Your task to perform on an android device: see sites visited before in the chrome app Image 0: 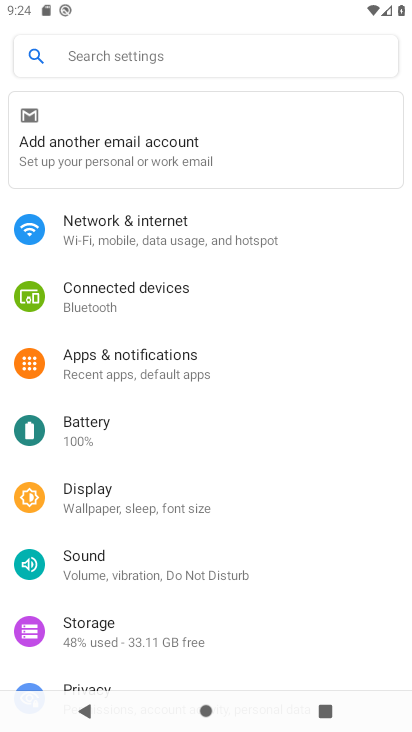
Step 0: press home button
Your task to perform on an android device: see sites visited before in the chrome app Image 1: 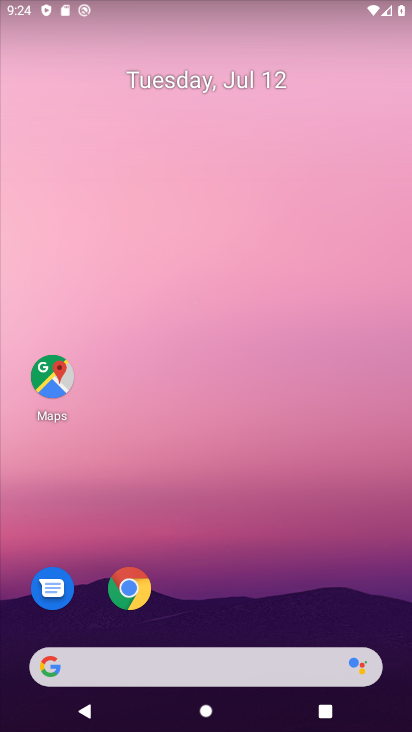
Step 1: drag from (209, 589) to (233, 35)
Your task to perform on an android device: see sites visited before in the chrome app Image 2: 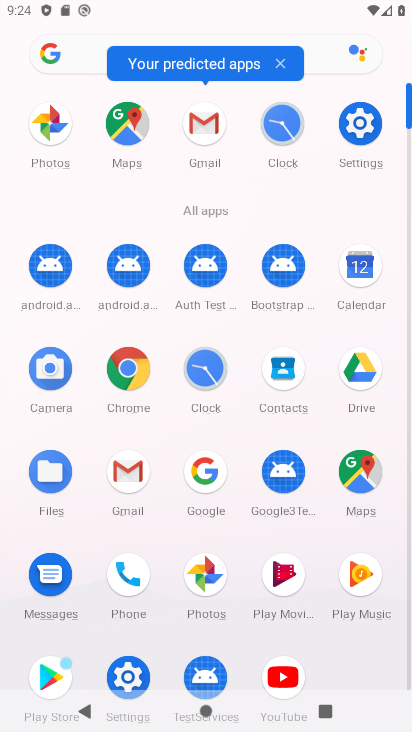
Step 2: click (141, 374)
Your task to perform on an android device: see sites visited before in the chrome app Image 3: 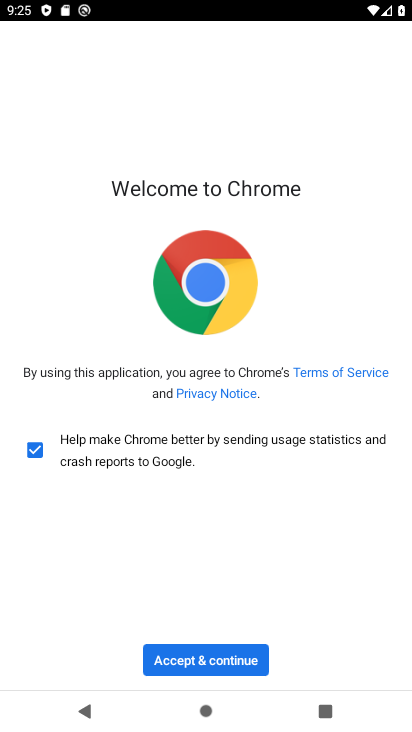
Step 3: click (234, 658)
Your task to perform on an android device: see sites visited before in the chrome app Image 4: 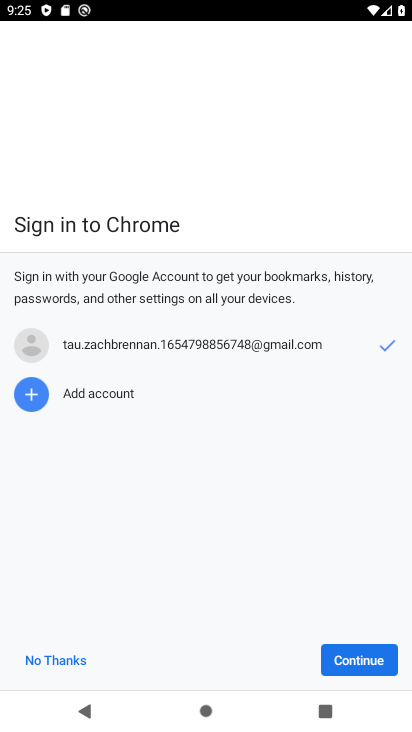
Step 4: click (332, 662)
Your task to perform on an android device: see sites visited before in the chrome app Image 5: 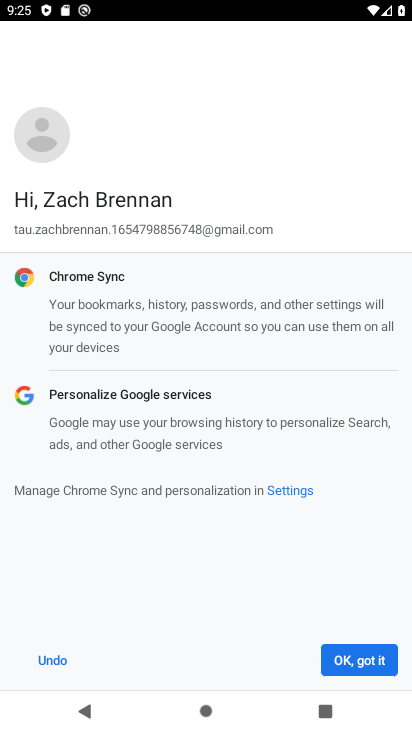
Step 5: click (351, 665)
Your task to perform on an android device: see sites visited before in the chrome app Image 6: 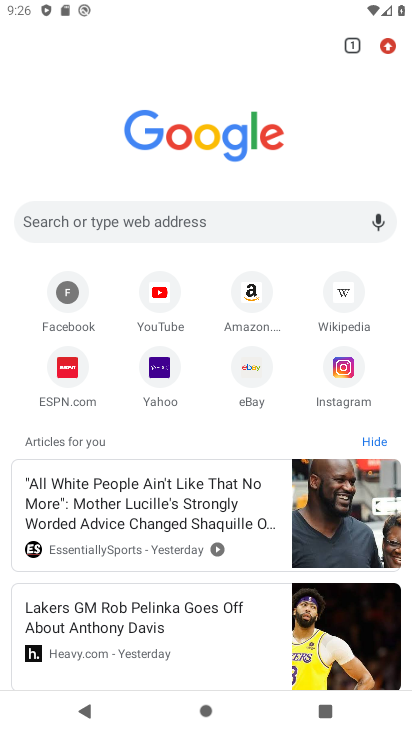
Step 6: click (384, 43)
Your task to perform on an android device: see sites visited before in the chrome app Image 7: 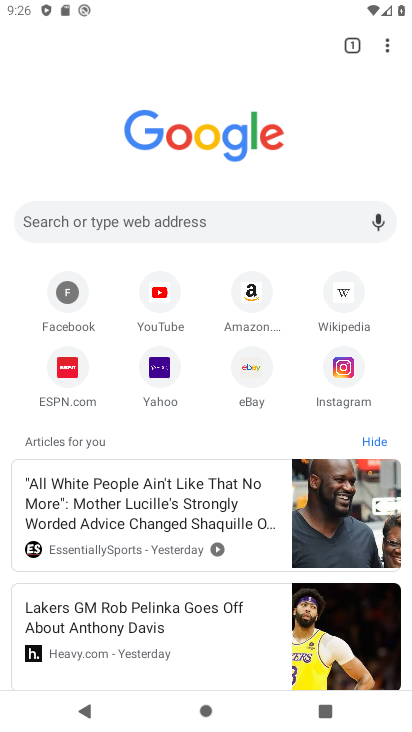
Step 7: click (384, 42)
Your task to perform on an android device: see sites visited before in the chrome app Image 8: 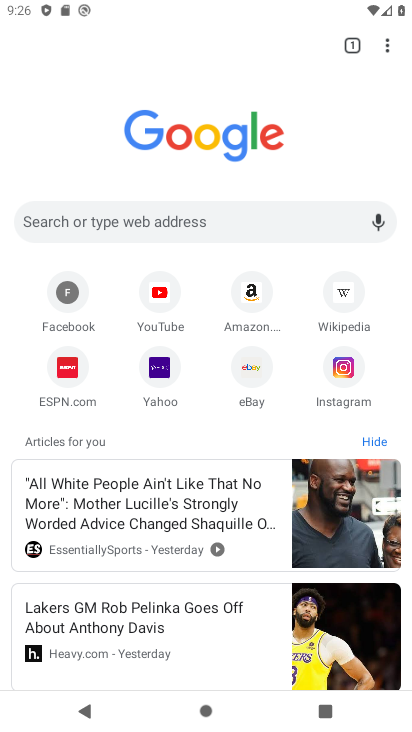
Step 8: click (384, 41)
Your task to perform on an android device: see sites visited before in the chrome app Image 9: 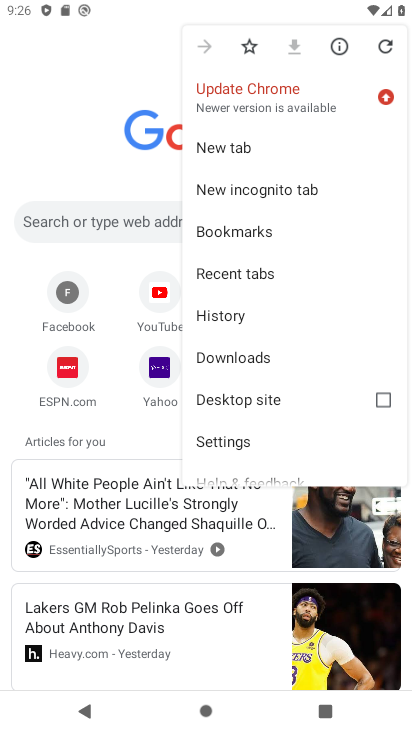
Step 9: click (247, 269)
Your task to perform on an android device: see sites visited before in the chrome app Image 10: 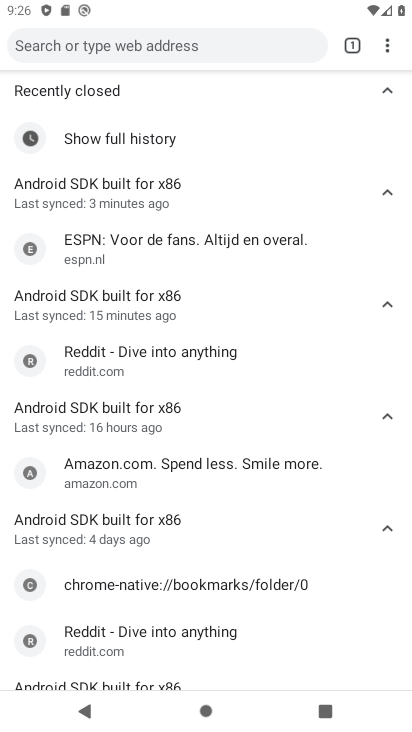
Step 10: task complete